Your task to perform on an android device: Is it going to rain tomorrow? Image 0: 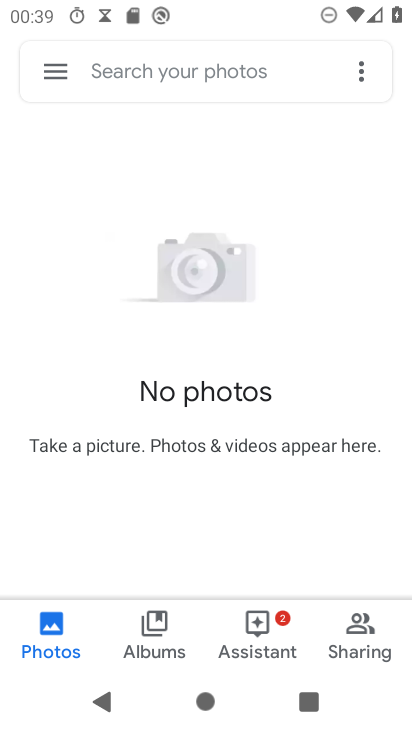
Step 0: press home button
Your task to perform on an android device: Is it going to rain tomorrow? Image 1: 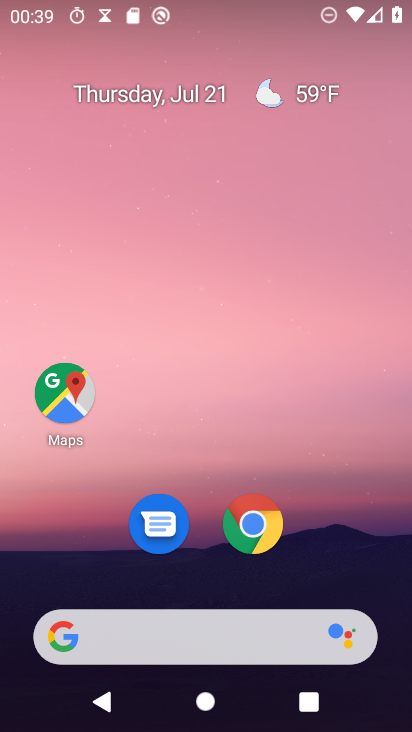
Step 1: click (166, 643)
Your task to perform on an android device: Is it going to rain tomorrow? Image 2: 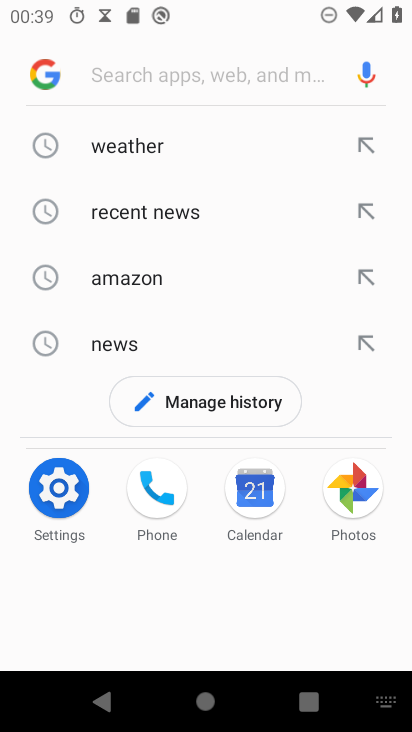
Step 2: click (133, 148)
Your task to perform on an android device: Is it going to rain tomorrow? Image 3: 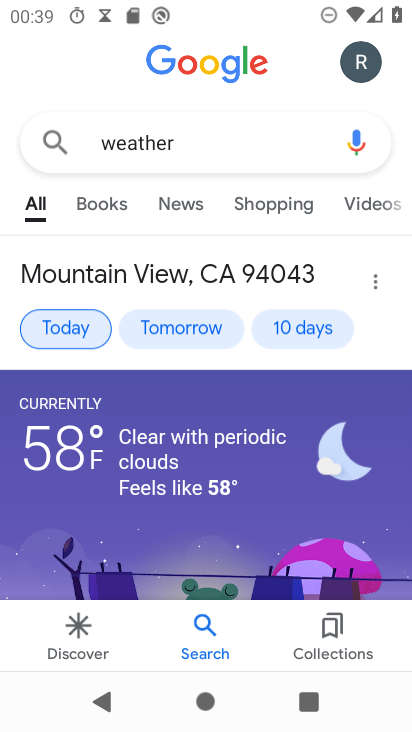
Step 3: click (172, 336)
Your task to perform on an android device: Is it going to rain tomorrow? Image 4: 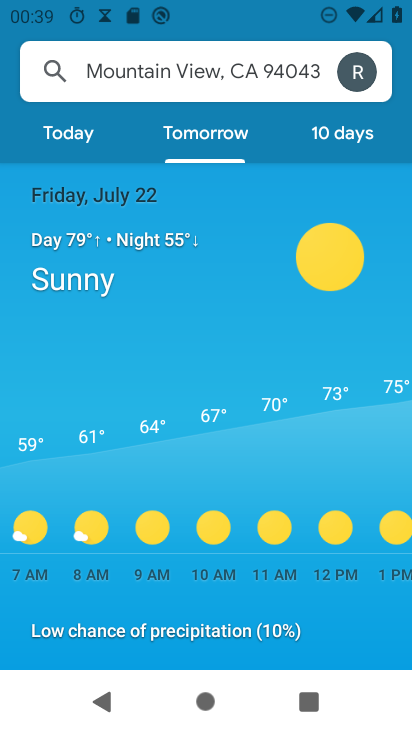
Step 4: task complete